Your task to perform on an android device: toggle data saver in the chrome app Image 0: 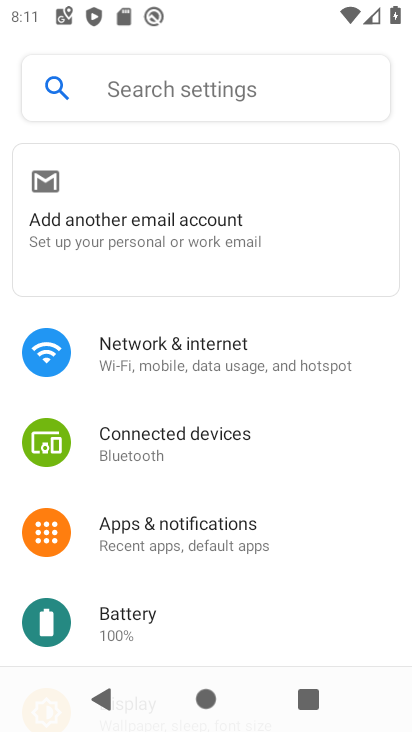
Step 0: press home button
Your task to perform on an android device: toggle data saver in the chrome app Image 1: 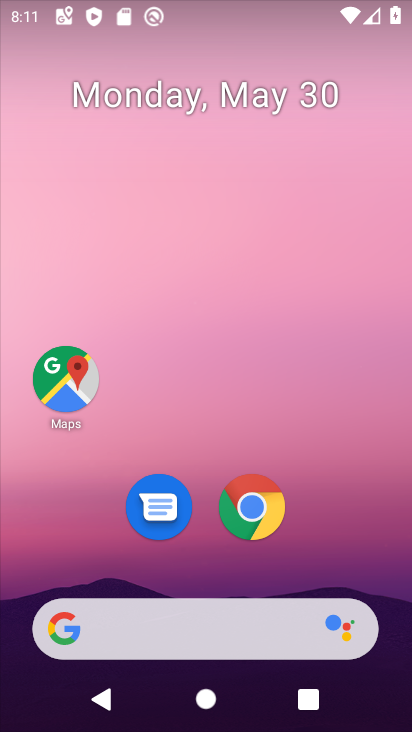
Step 1: click (194, 571)
Your task to perform on an android device: toggle data saver in the chrome app Image 2: 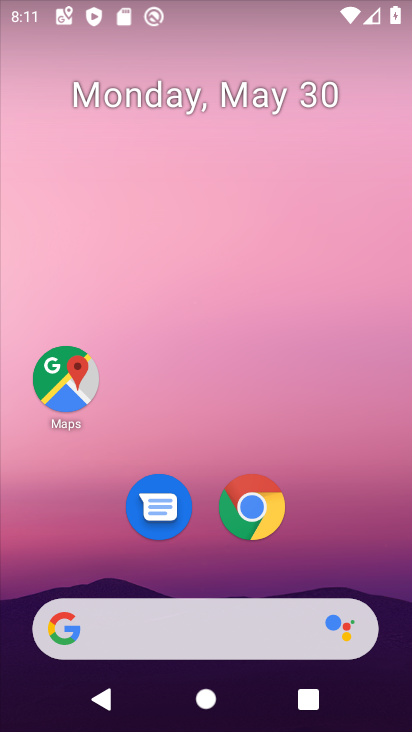
Step 2: click (274, 509)
Your task to perform on an android device: toggle data saver in the chrome app Image 3: 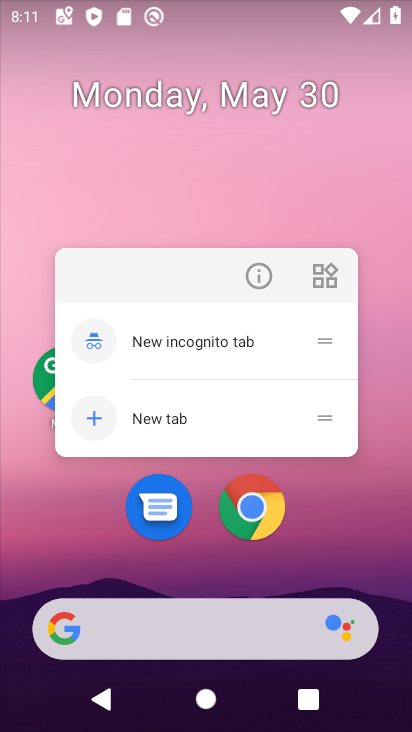
Step 3: click (273, 518)
Your task to perform on an android device: toggle data saver in the chrome app Image 4: 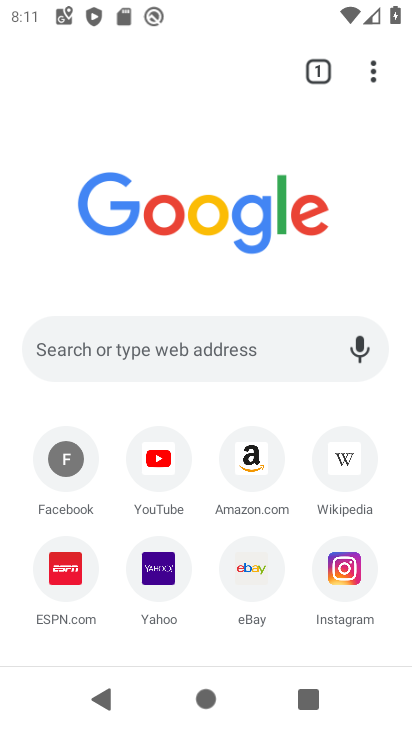
Step 4: click (374, 76)
Your task to perform on an android device: toggle data saver in the chrome app Image 5: 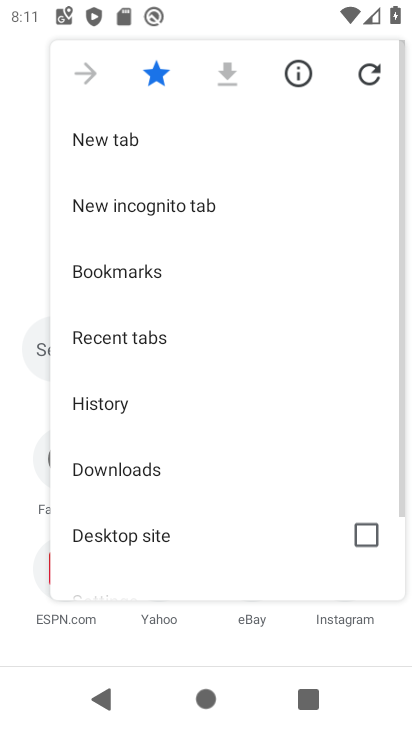
Step 5: drag from (177, 538) to (276, 64)
Your task to perform on an android device: toggle data saver in the chrome app Image 6: 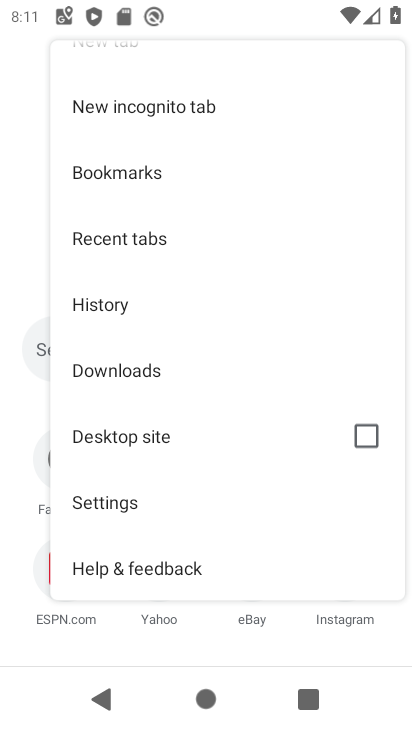
Step 6: click (132, 508)
Your task to perform on an android device: toggle data saver in the chrome app Image 7: 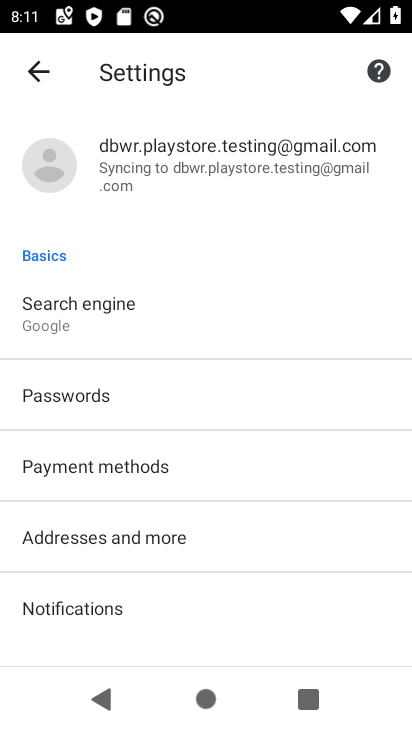
Step 7: drag from (140, 590) to (220, 92)
Your task to perform on an android device: toggle data saver in the chrome app Image 8: 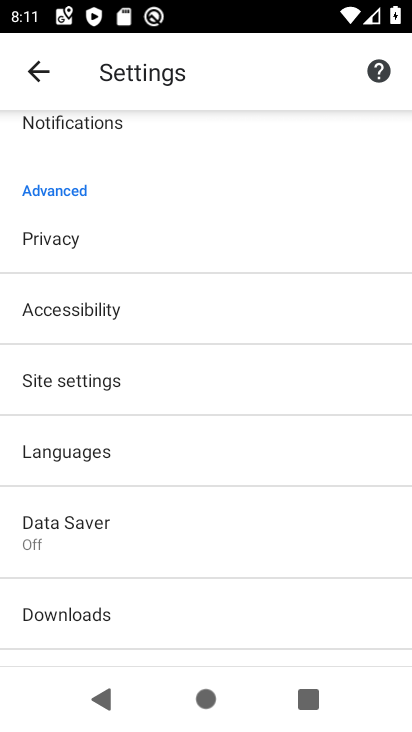
Step 8: click (115, 538)
Your task to perform on an android device: toggle data saver in the chrome app Image 9: 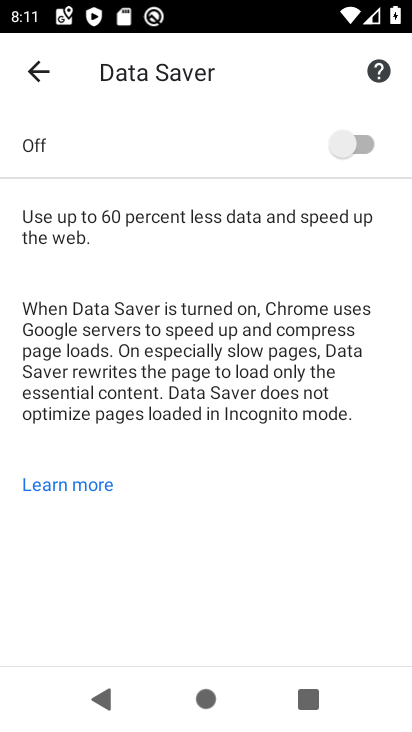
Step 9: click (367, 150)
Your task to perform on an android device: toggle data saver in the chrome app Image 10: 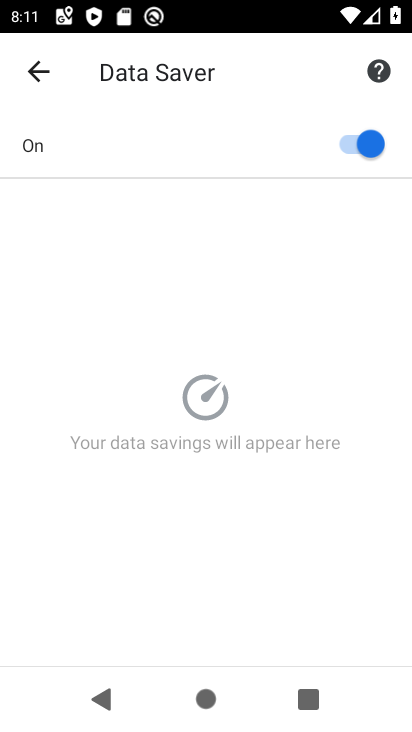
Step 10: task complete